Your task to perform on an android device: turn on sleep mode Image 0: 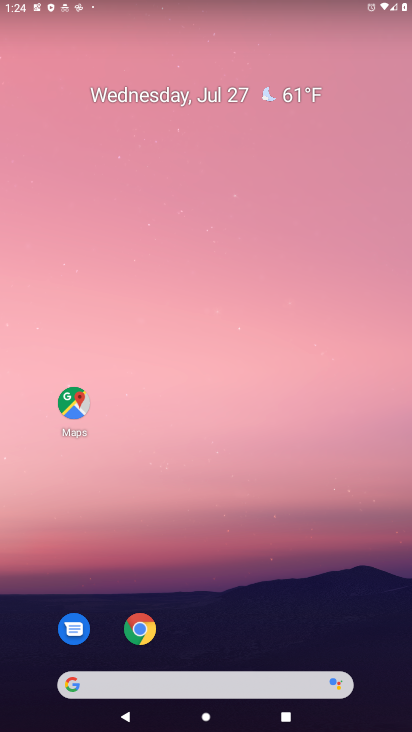
Step 0: drag from (351, 637) to (308, 58)
Your task to perform on an android device: turn on sleep mode Image 1: 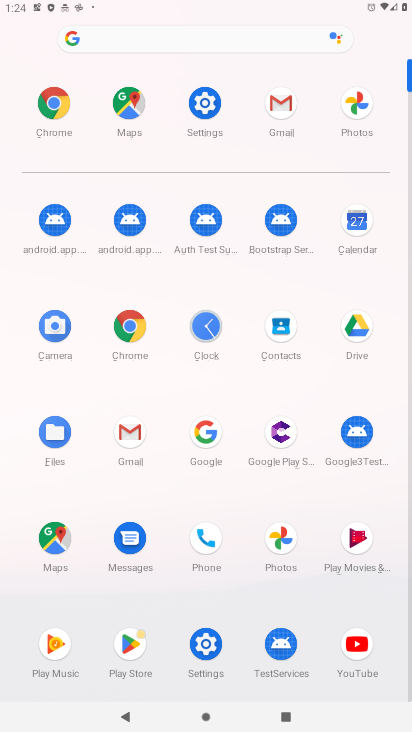
Step 1: click (182, 103)
Your task to perform on an android device: turn on sleep mode Image 2: 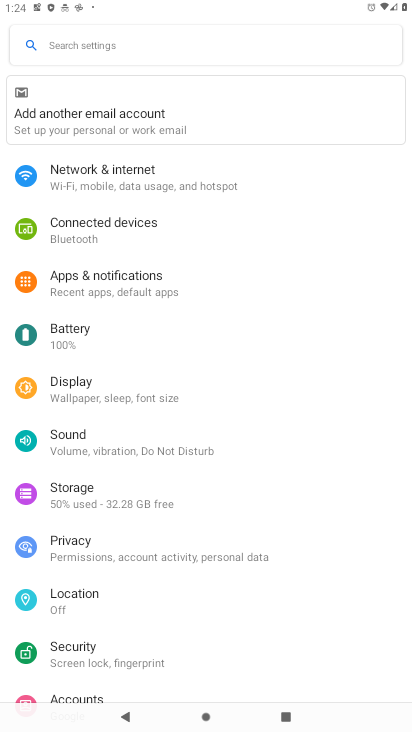
Step 2: click (197, 447)
Your task to perform on an android device: turn on sleep mode Image 3: 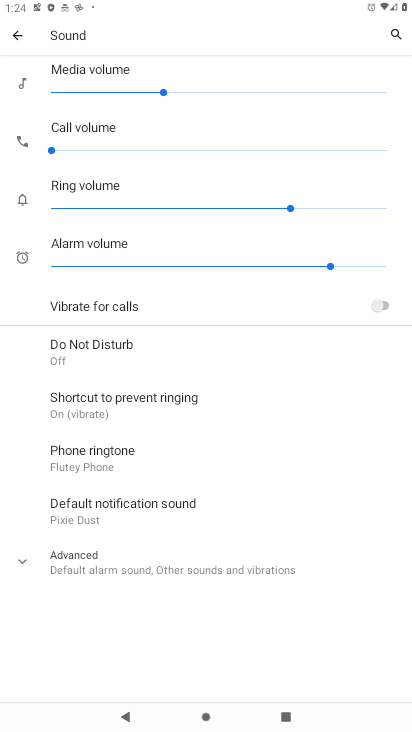
Step 3: task complete